Your task to perform on an android device: turn on sleep mode Image 0: 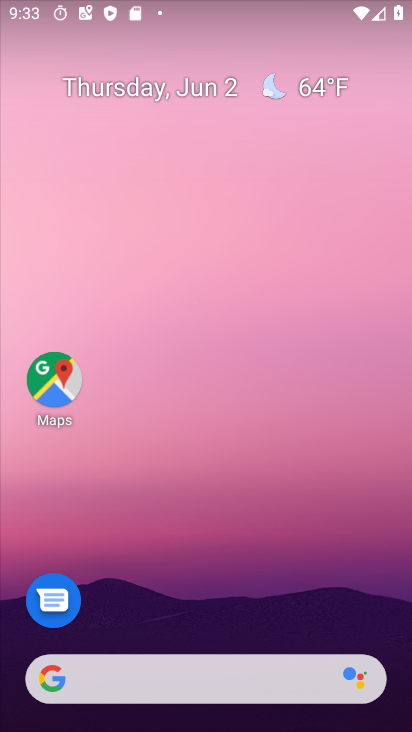
Step 0: drag from (226, 528) to (213, 30)
Your task to perform on an android device: turn on sleep mode Image 1: 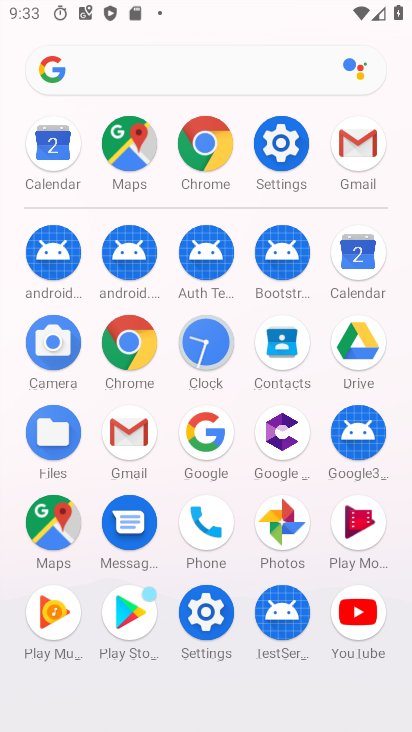
Step 1: click (206, 616)
Your task to perform on an android device: turn on sleep mode Image 2: 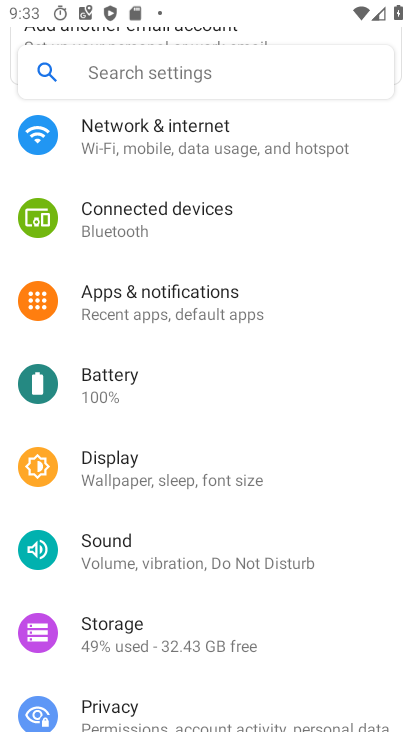
Step 2: click (141, 478)
Your task to perform on an android device: turn on sleep mode Image 3: 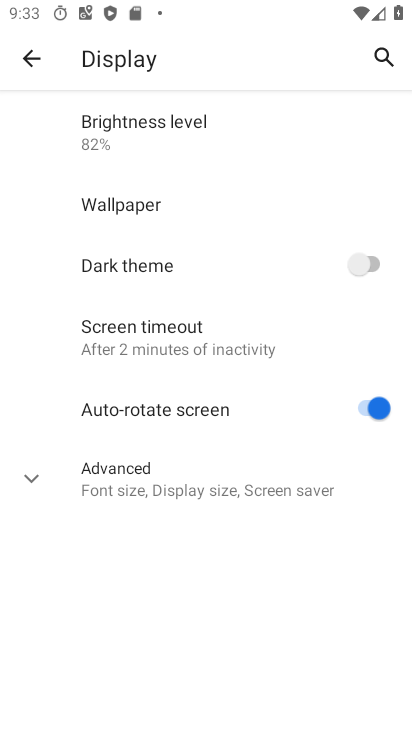
Step 3: click (137, 324)
Your task to perform on an android device: turn on sleep mode Image 4: 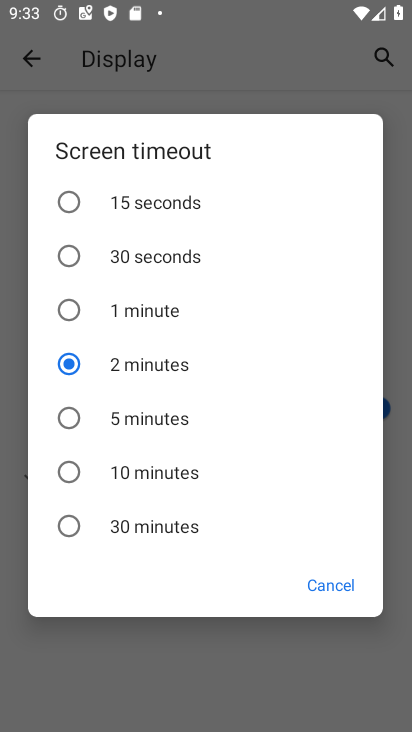
Step 4: task complete